Your task to perform on an android device: Open Chrome and go to the settings page Image 0: 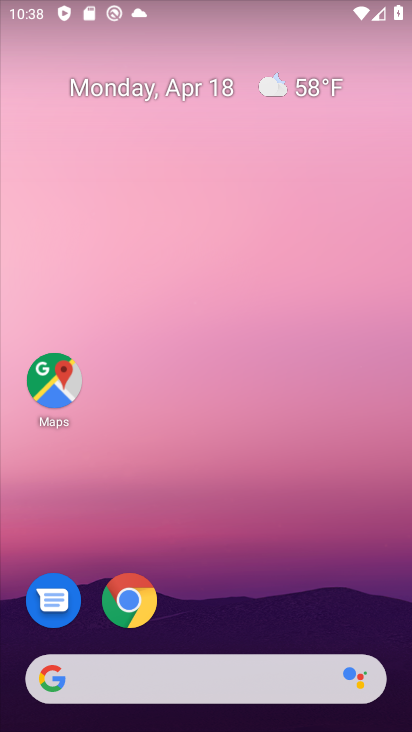
Step 0: click (129, 601)
Your task to perform on an android device: Open Chrome and go to the settings page Image 1: 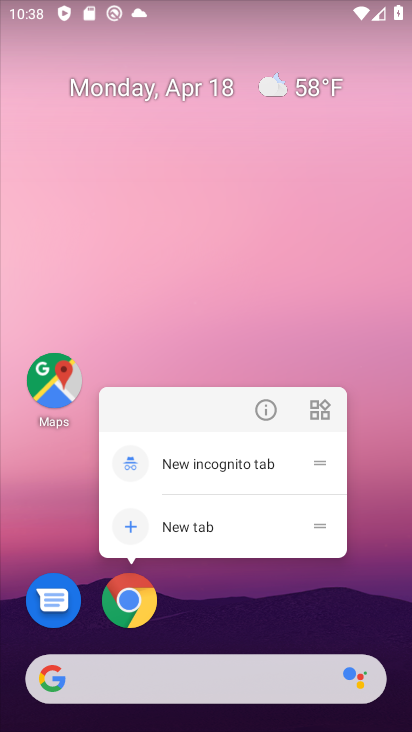
Step 1: click (130, 591)
Your task to perform on an android device: Open Chrome and go to the settings page Image 2: 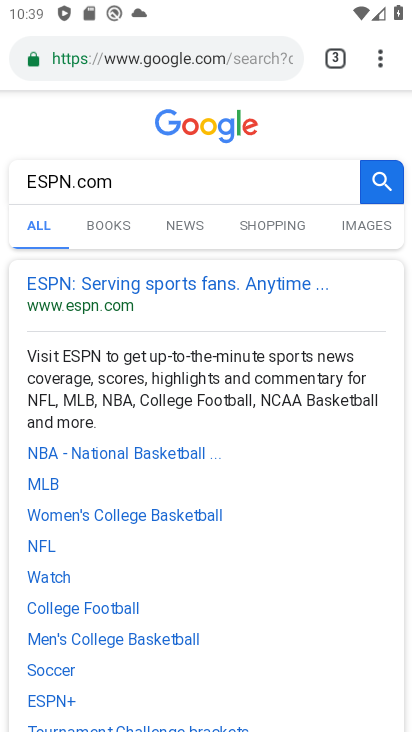
Step 2: click (379, 53)
Your task to perform on an android device: Open Chrome and go to the settings page Image 3: 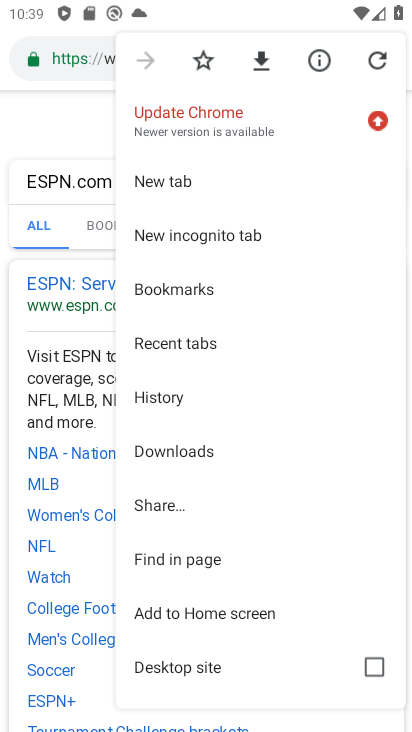
Step 3: drag from (237, 644) to (295, 270)
Your task to perform on an android device: Open Chrome and go to the settings page Image 4: 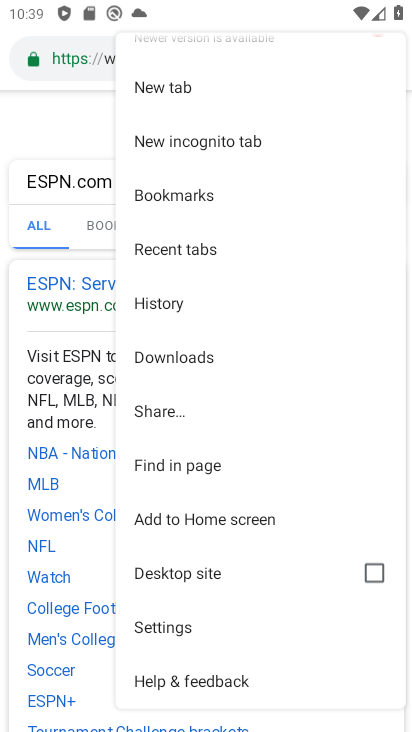
Step 4: click (164, 621)
Your task to perform on an android device: Open Chrome and go to the settings page Image 5: 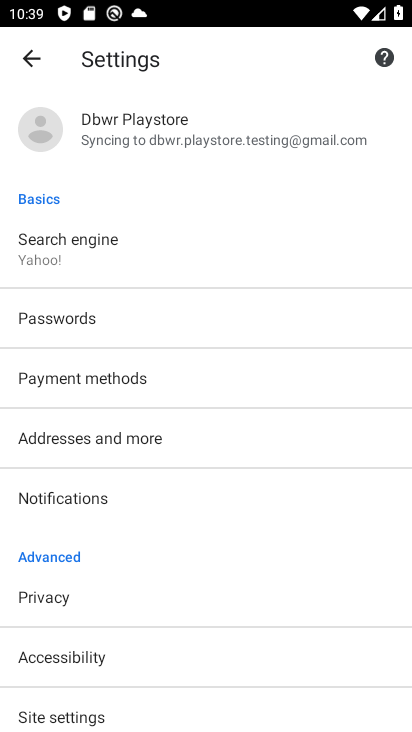
Step 5: task complete